Your task to perform on an android device: What's on the menu at Burger King? Image 0: 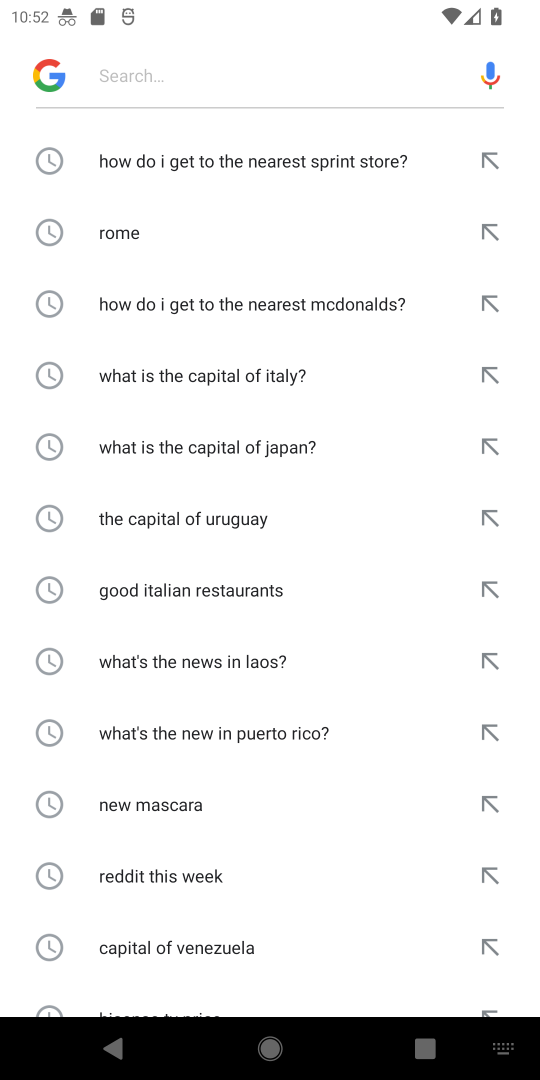
Step 0: type "Burger King menu"
Your task to perform on an android device: What's on the menu at Burger King? Image 1: 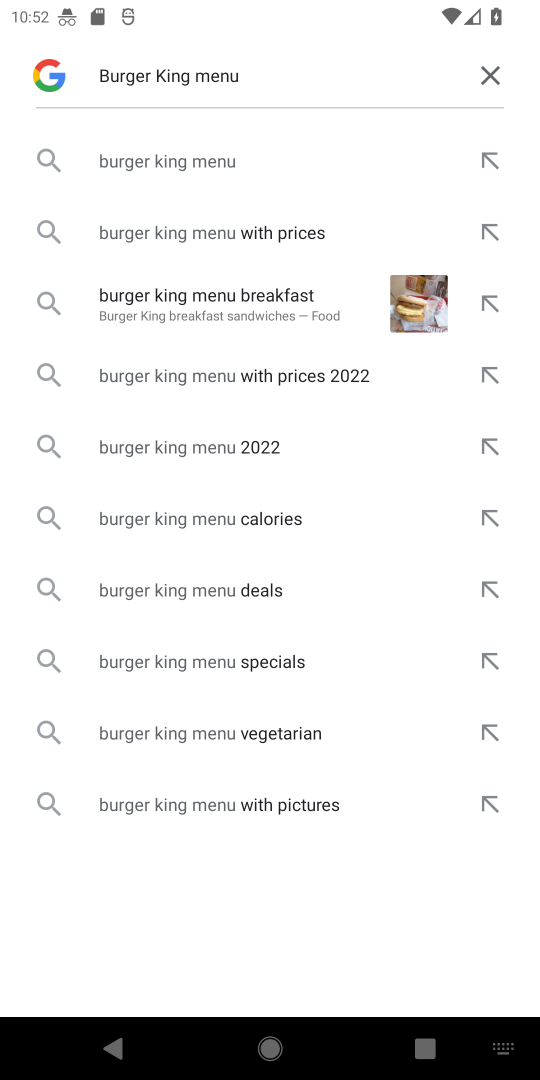
Step 1: press enter
Your task to perform on an android device: What's on the menu at Burger King? Image 2: 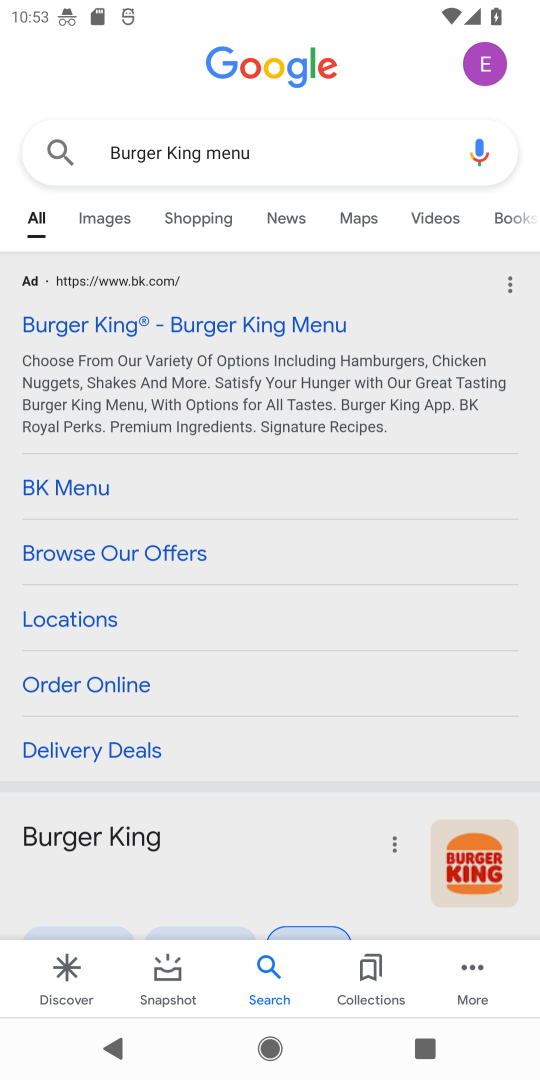
Step 2: drag from (215, 871) to (376, 188)
Your task to perform on an android device: What's on the menu at Burger King? Image 3: 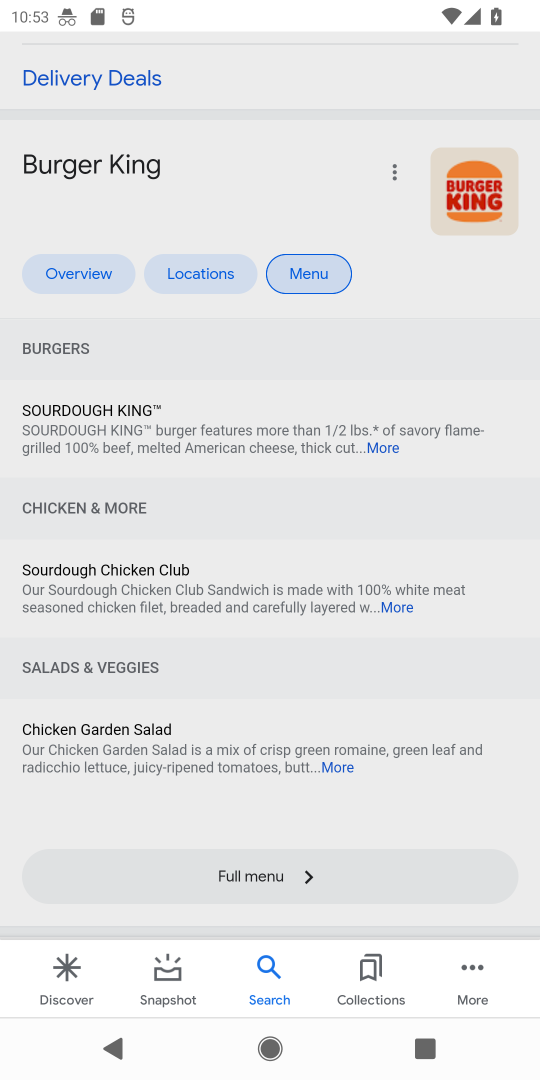
Step 3: click (261, 879)
Your task to perform on an android device: What's on the menu at Burger King? Image 4: 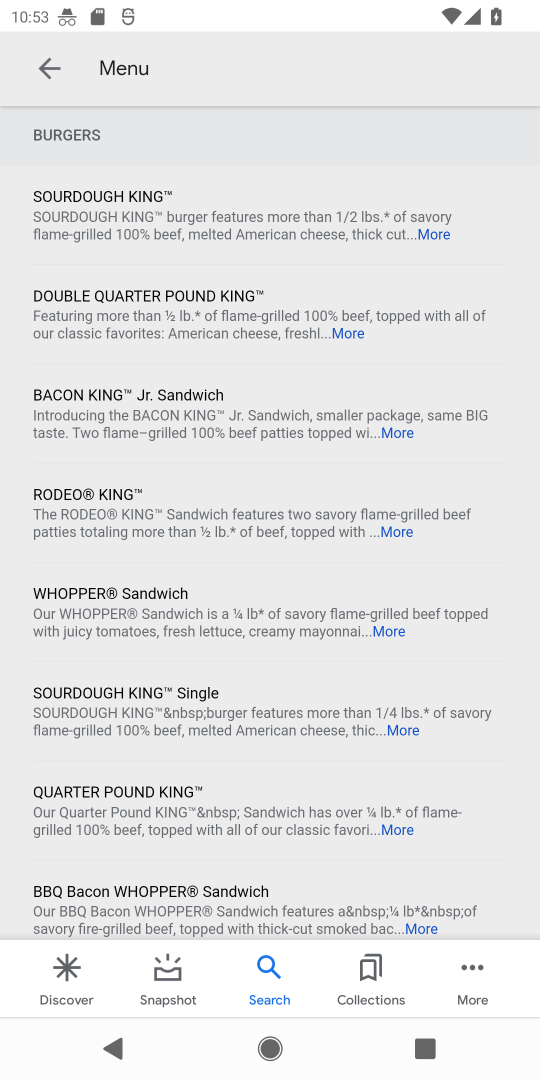
Step 4: task complete